Your task to perform on an android device: open chrome and create a bookmark for the current page Image 0: 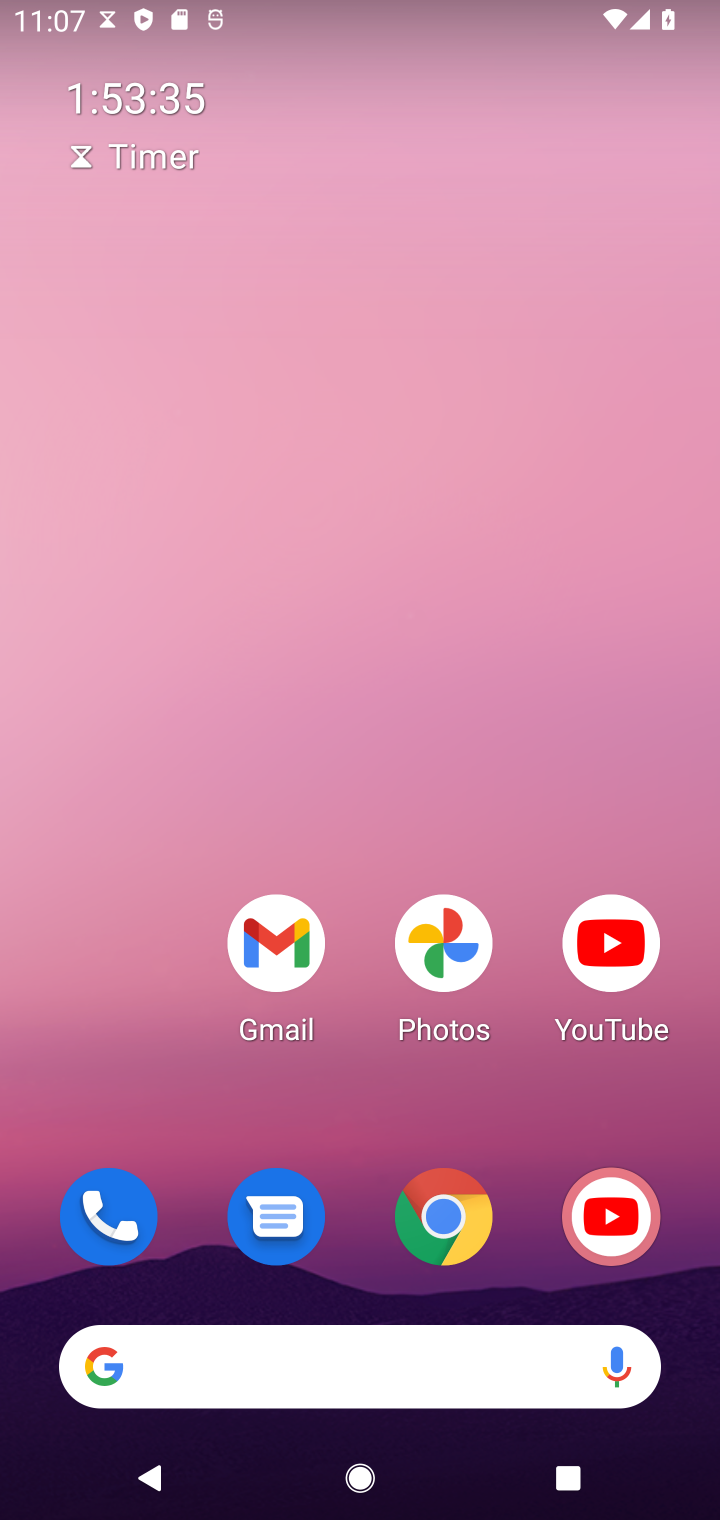
Step 0: click (457, 1209)
Your task to perform on an android device: open chrome and create a bookmark for the current page Image 1: 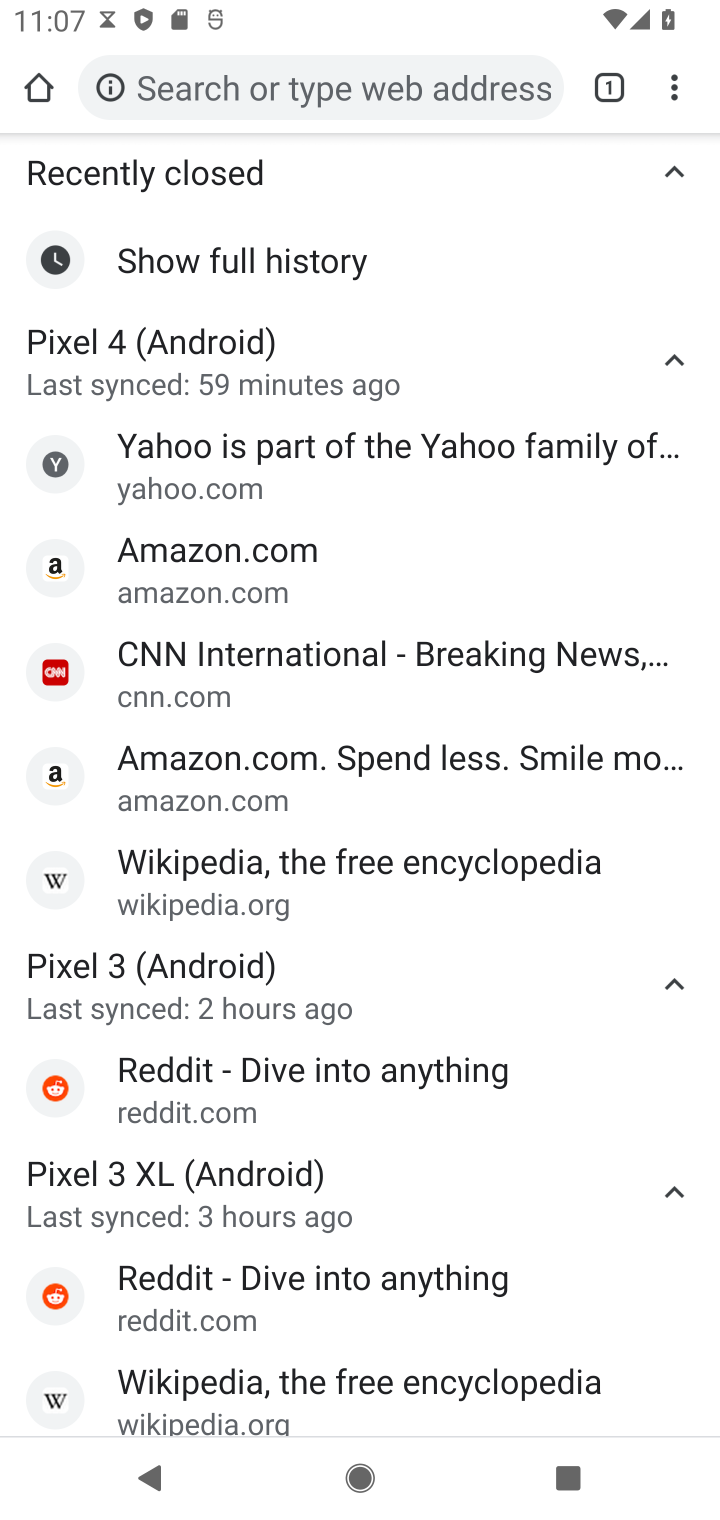
Step 1: task complete